Your task to perform on an android device: Go to wifi settings Image 0: 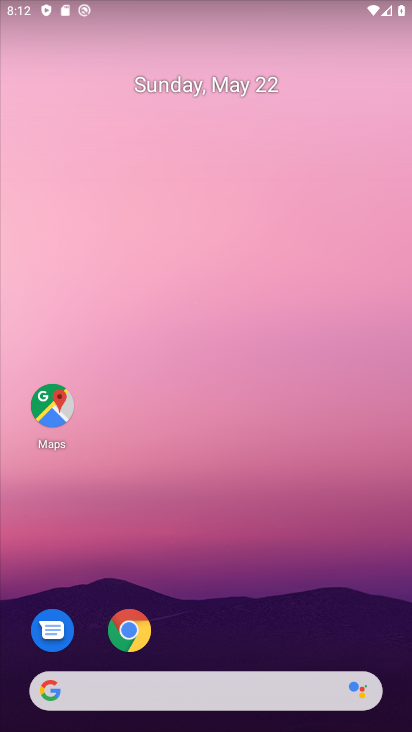
Step 0: press home button
Your task to perform on an android device: Go to wifi settings Image 1: 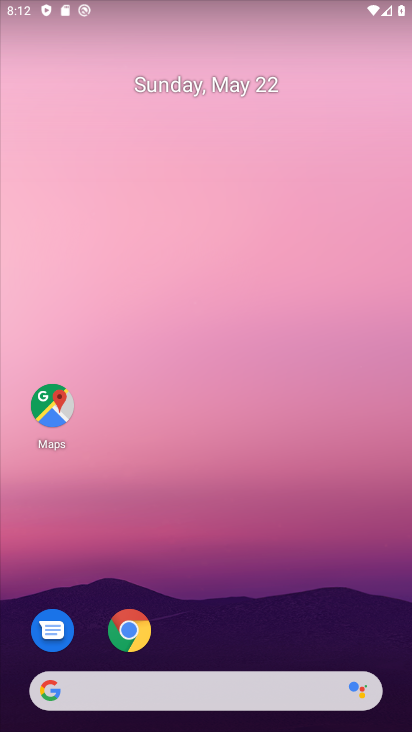
Step 1: drag from (157, 687) to (342, 143)
Your task to perform on an android device: Go to wifi settings Image 2: 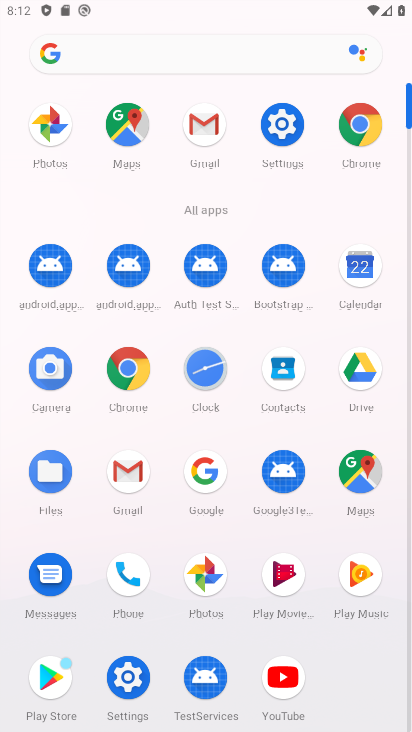
Step 2: click (277, 135)
Your task to perform on an android device: Go to wifi settings Image 3: 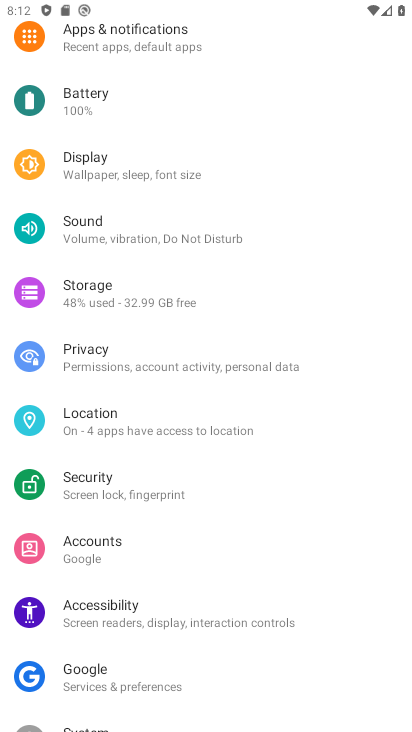
Step 3: drag from (277, 91) to (188, 530)
Your task to perform on an android device: Go to wifi settings Image 4: 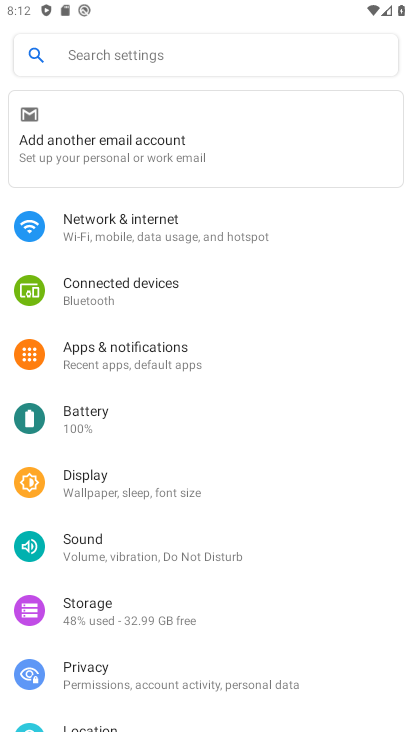
Step 4: click (155, 226)
Your task to perform on an android device: Go to wifi settings Image 5: 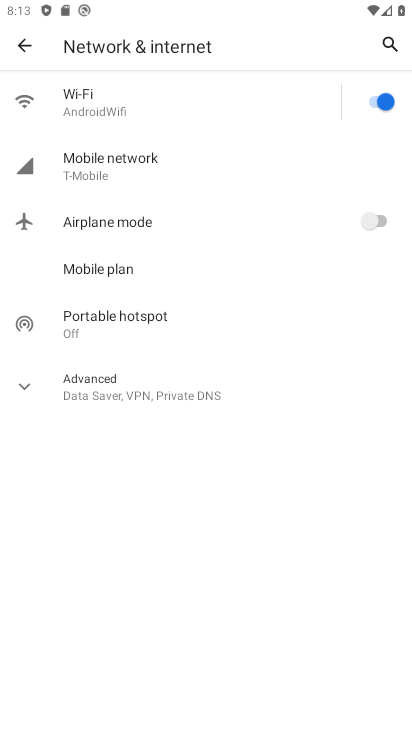
Step 5: click (94, 105)
Your task to perform on an android device: Go to wifi settings Image 6: 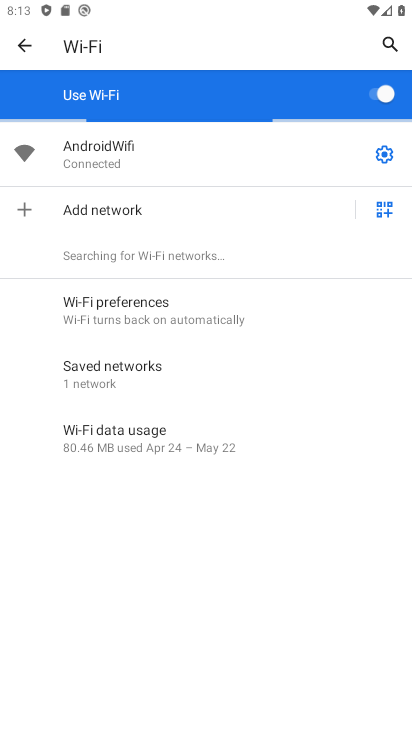
Step 6: task complete